Your task to perform on an android device: toggle notification dots Image 0: 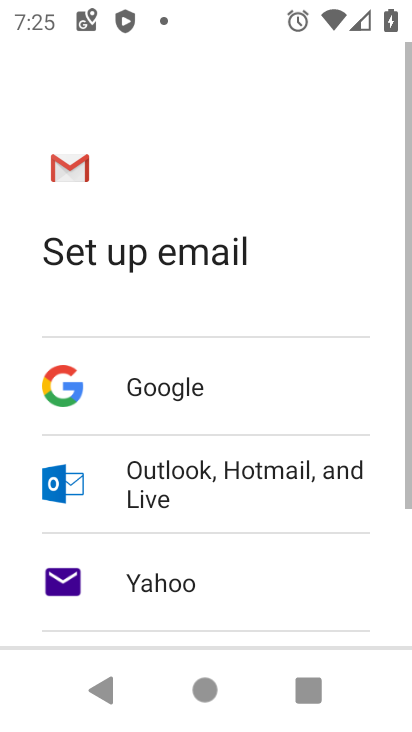
Step 0: press home button
Your task to perform on an android device: toggle notification dots Image 1: 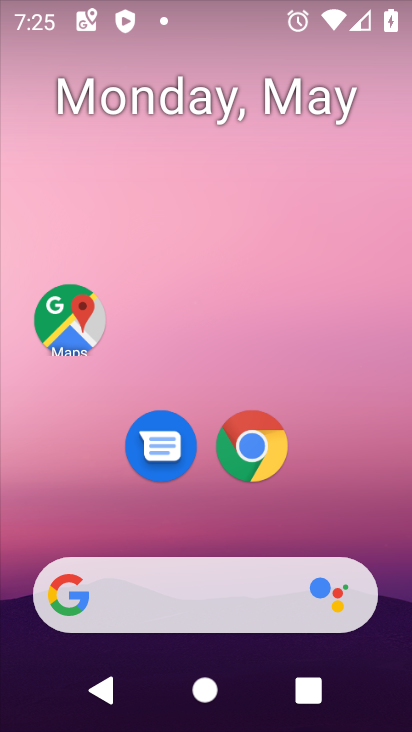
Step 1: drag from (343, 529) to (219, 40)
Your task to perform on an android device: toggle notification dots Image 2: 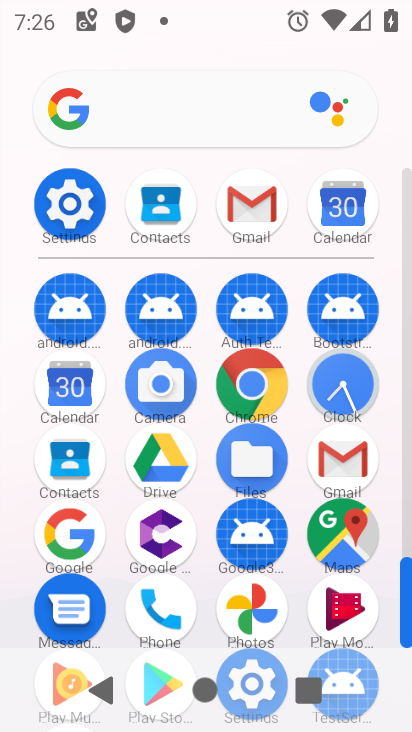
Step 2: click (72, 201)
Your task to perform on an android device: toggle notification dots Image 3: 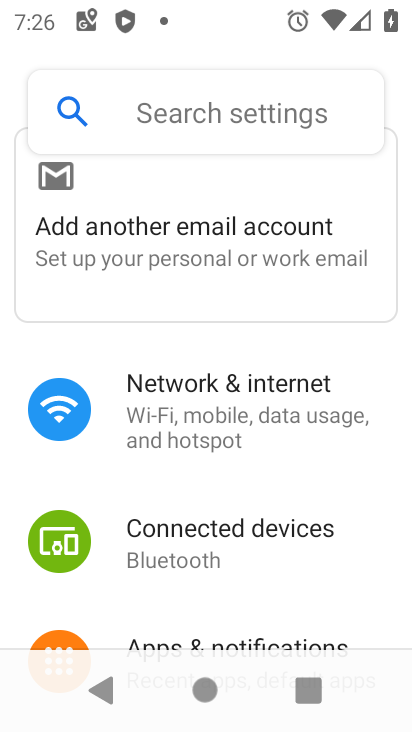
Step 3: drag from (213, 565) to (173, 387)
Your task to perform on an android device: toggle notification dots Image 4: 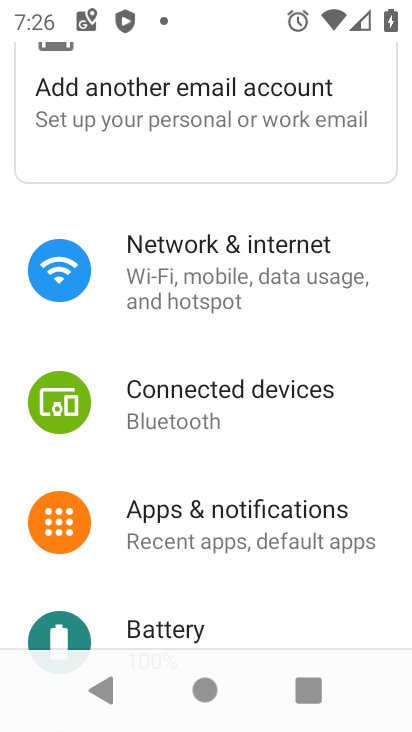
Step 4: click (223, 508)
Your task to perform on an android device: toggle notification dots Image 5: 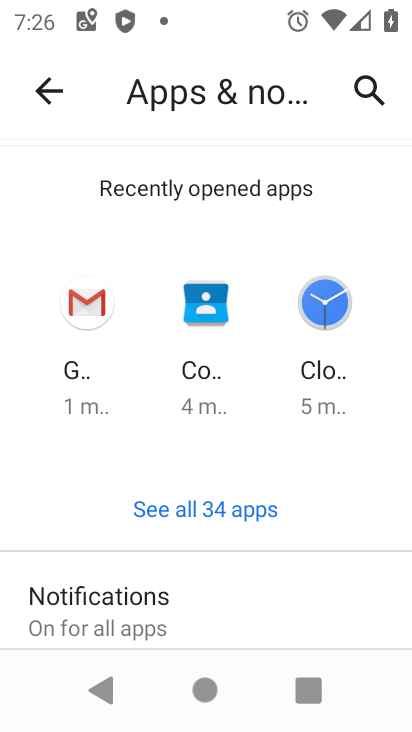
Step 5: drag from (224, 589) to (200, 342)
Your task to perform on an android device: toggle notification dots Image 6: 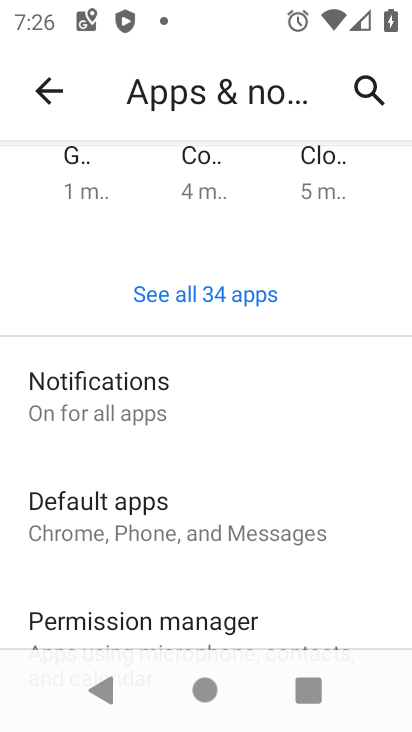
Step 6: click (92, 383)
Your task to perform on an android device: toggle notification dots Image 7: 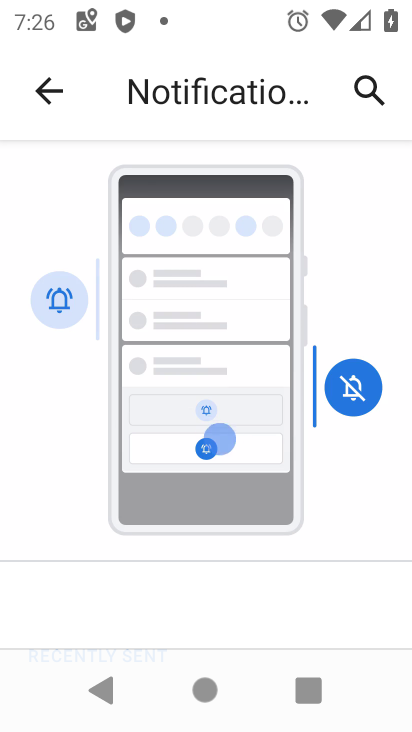
Step 7: drag from (221, 589) to (166, 228)
Your task to perform on an android device: toggle notification dots Image 8: 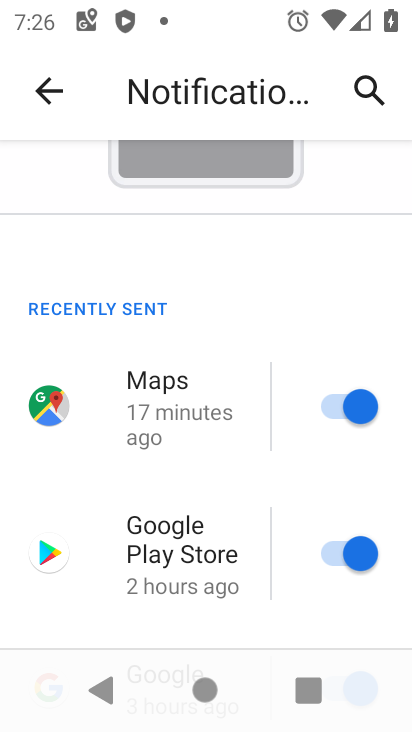
Step 8: drag from (230, 471) to (126, 94)
Your task to perform on an android device: toggle notification dots Image 9: 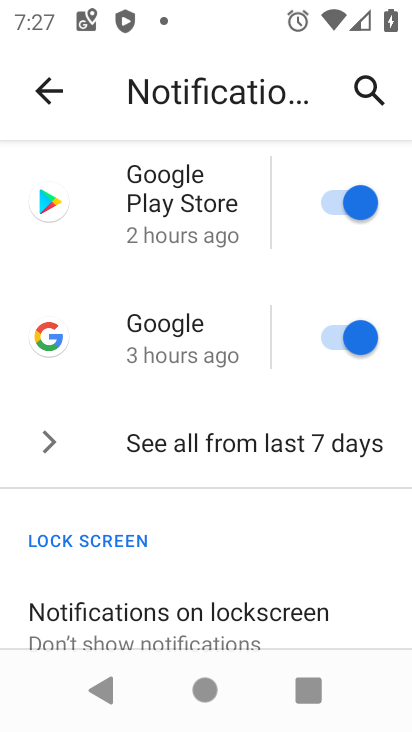
Step 9: drag from (225, 514) to (164, 226)
Your task to perform on an android device: toggle notification dots Image 10: 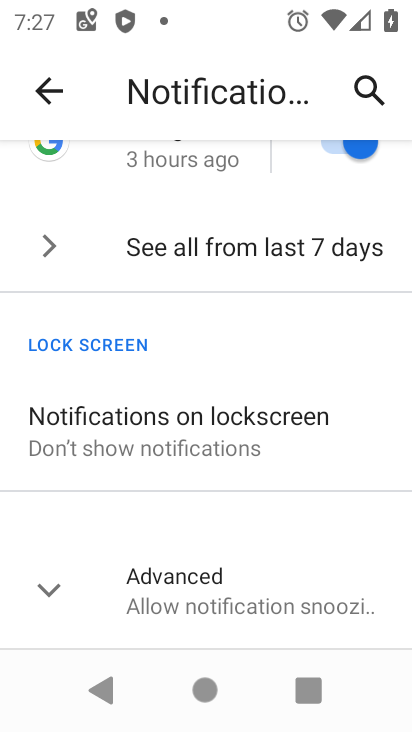
Step 10: drag from (240, 511) to (200, 327)
Your task to perform on an android device: toggle notification dots Image 11: 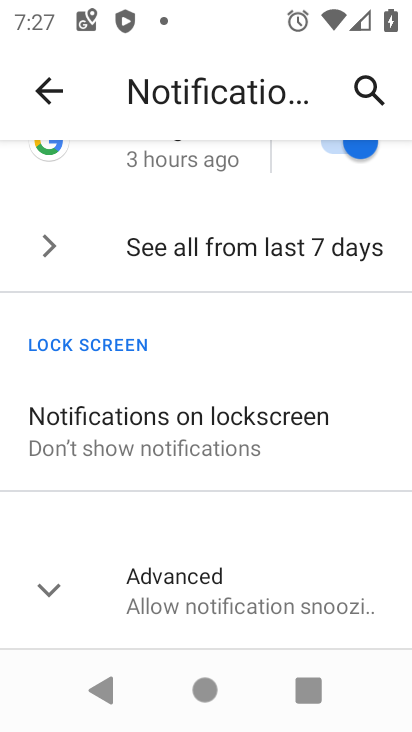
Step 11: click (52, 590)
Your task to perform on an android device: toggle notification dots Image 12: 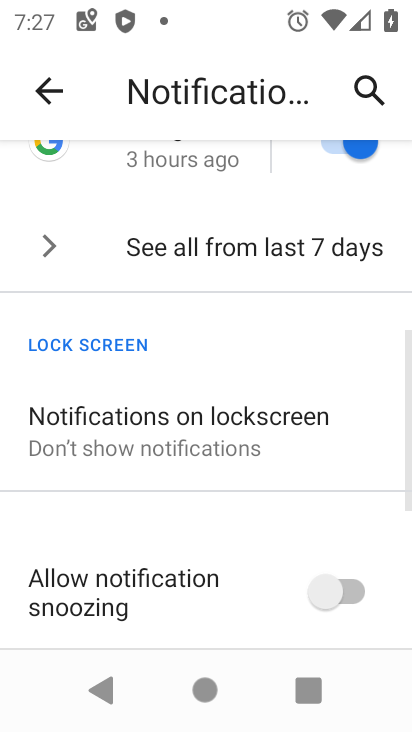
Step 12: drag from (177, 527) to (127, 223)
Your task to perform on an android device: toggle notification dots Image 13: 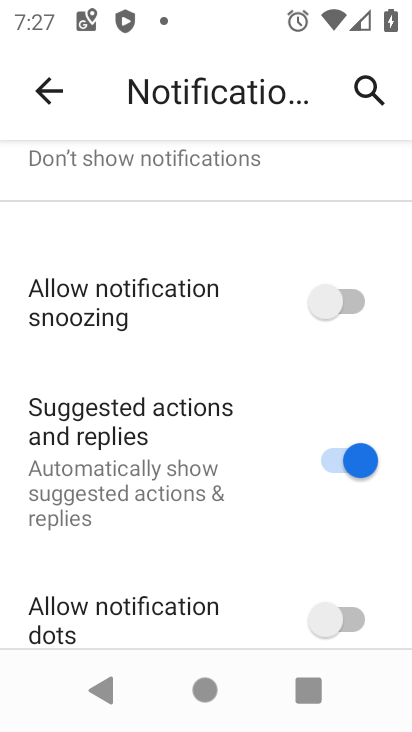
Step 13: drag from (224, 530) to (193, 357)
Your task to perform on an android device: toggle notification dots Image 14: 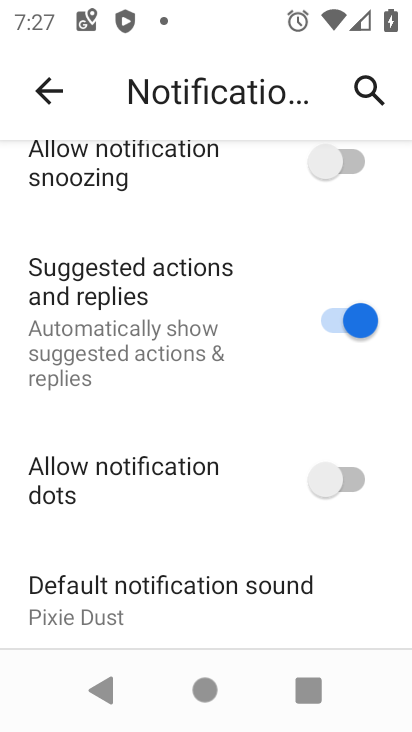
Step 14: click (317, 485)
Your task to perform on an android device: toggle notification dots Image 15: 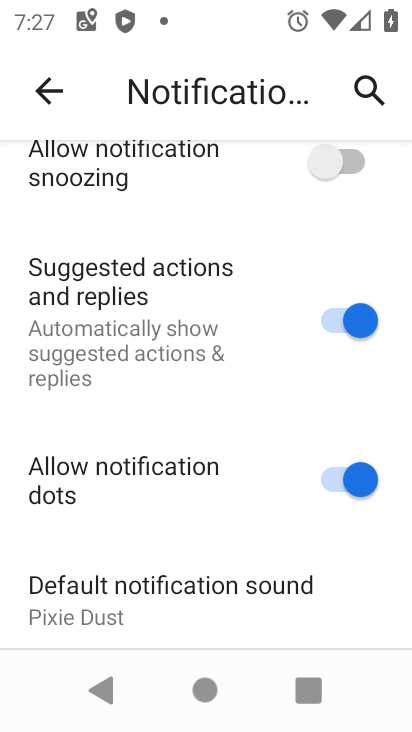
Step 15: task complete